Your task to perform on an android device: Open Wikipedia Image 0: 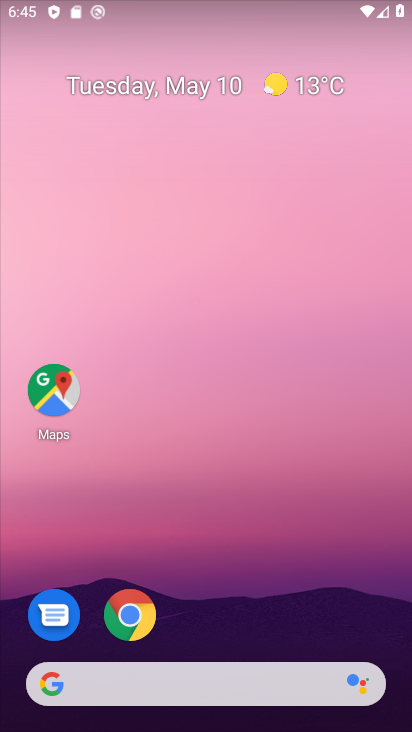
Step 0: drag from (254, 578) to (192, 154)
Your task to perform on an android device: Open Wikipedia Image 1: 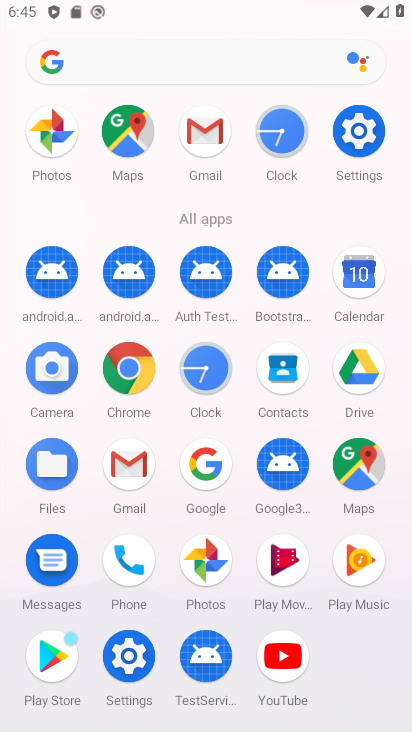
Step 1: click (128, 354)
Your task to perform on an android device: Open Wikipedia Image 2: 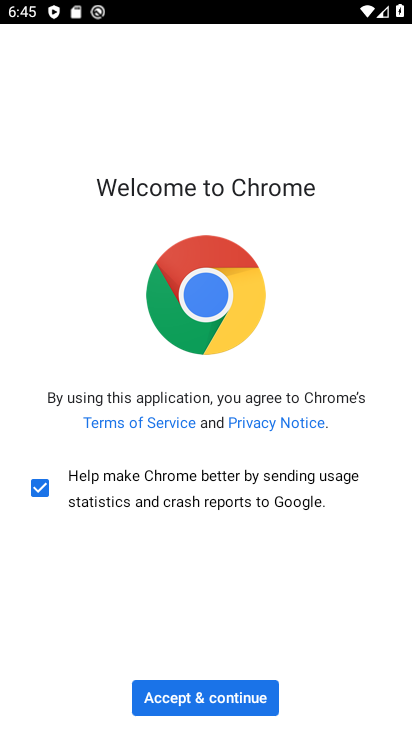
Step 2: click (237, 698)
Your task to perform on an android device: Open Wikipedia Image 3: 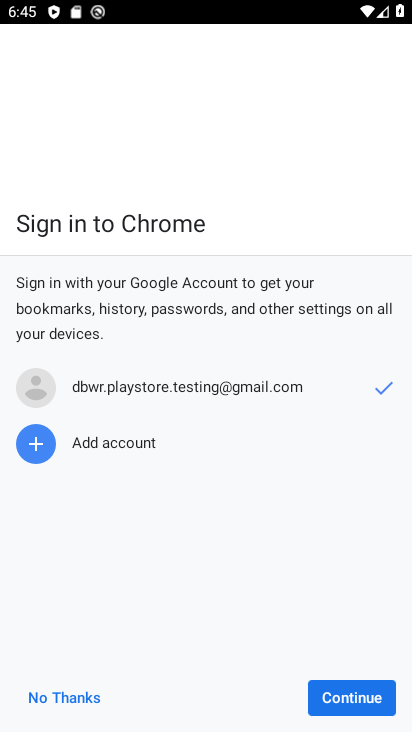
Step 3: click (349, 690)
Your task to perform on an android device: Open Wikipedia Image 4: 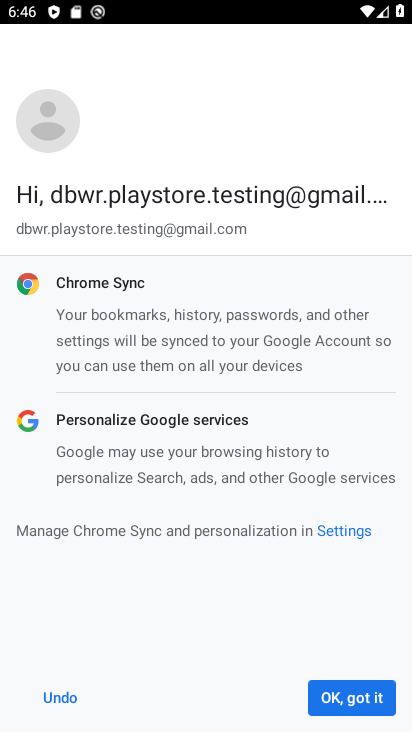
Step 4: click (331, 700)
Your task to perform on an android device: Open Wikipedia Image 5: 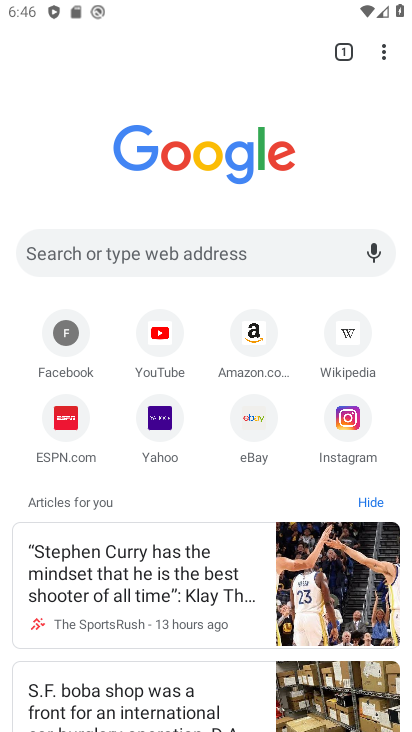
Step 5: click (349, 348)
Your task to perform on an android device: Open Wikipedia Image 6: 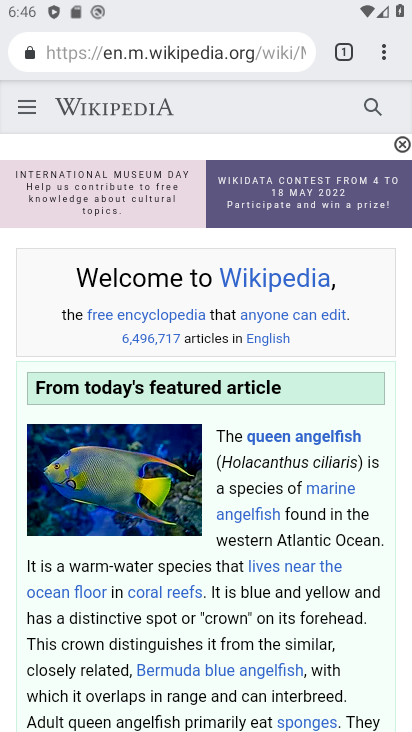
Step 6: task complete